Your task to perform on an android device: toggle location history Image 0: 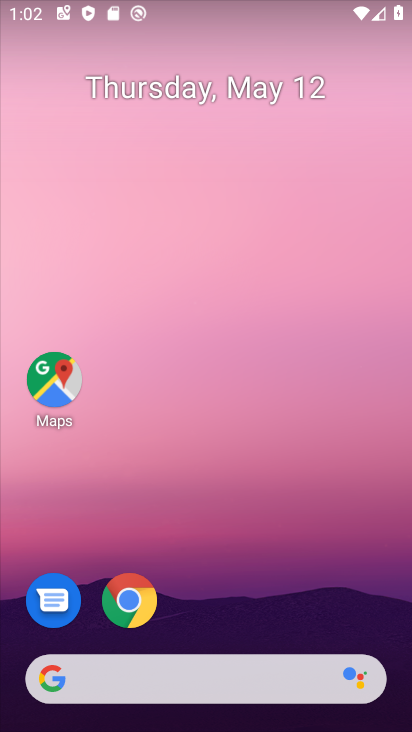
Step 0: drag from (222, 647) to (308, 164)
Your task to perform on an android device: toggle location history Image 1: 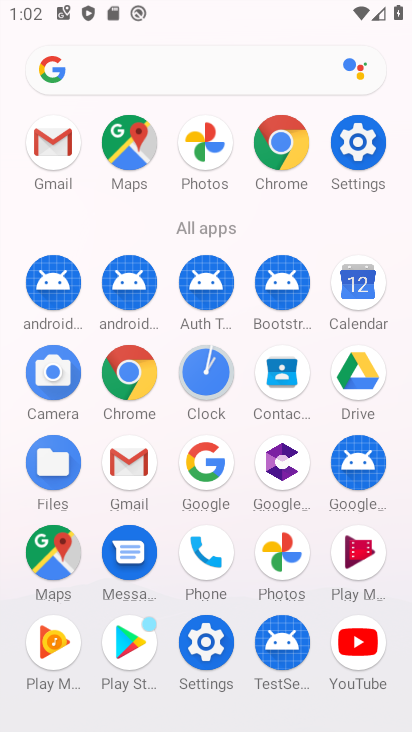
Step 1: click (201, 653)
Your task to perform on an android device: toggle location history Image 2: 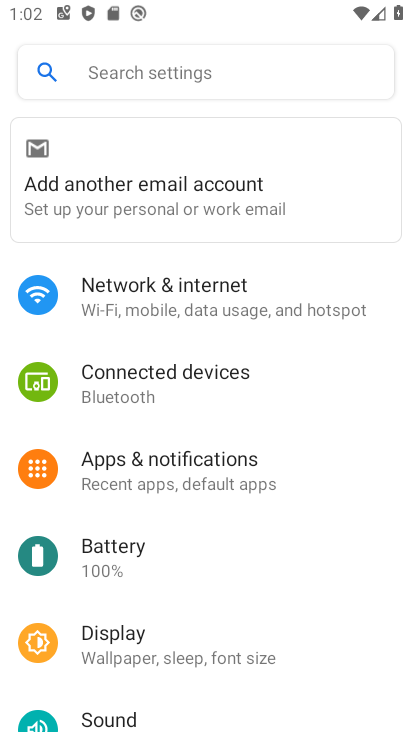
Step 2: drag from (225, 647) to (303, 300)
Your task to perform on an android device: toggle location history Image 3: 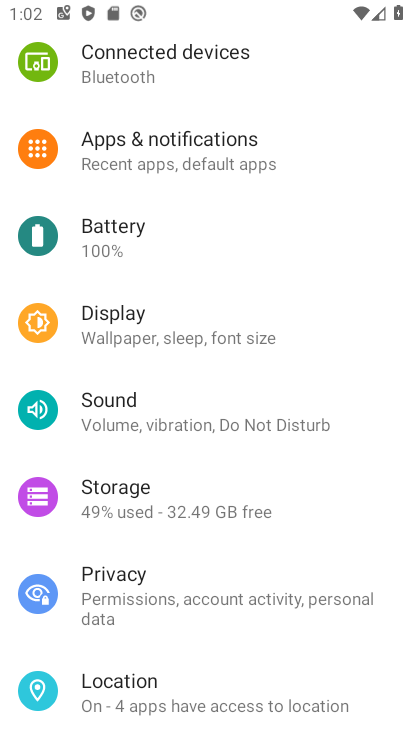
Step 3: click (157, 698)
Your task to perform on an android device: toggle location history Image 4: 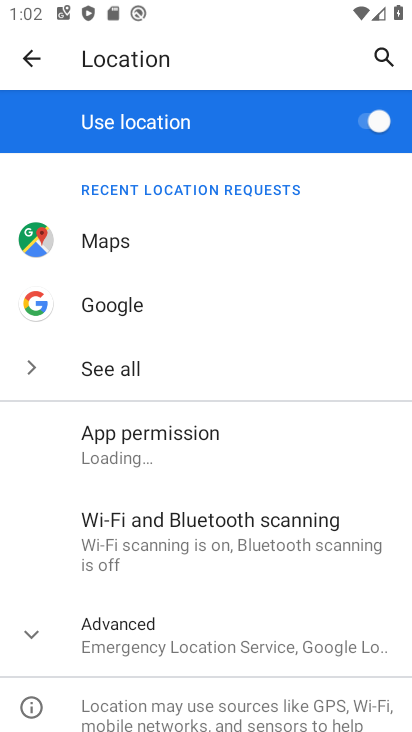
Step 4: click (225, 656)
Your task to perform on an android device: toggle location history Image 5: 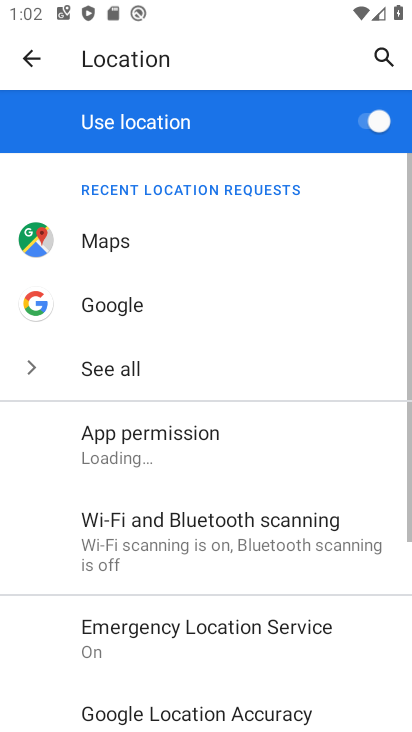
Step 5: drag from (223, 657) to (311, 294)
Your task to perform on an android device: toggle location history Image 6: 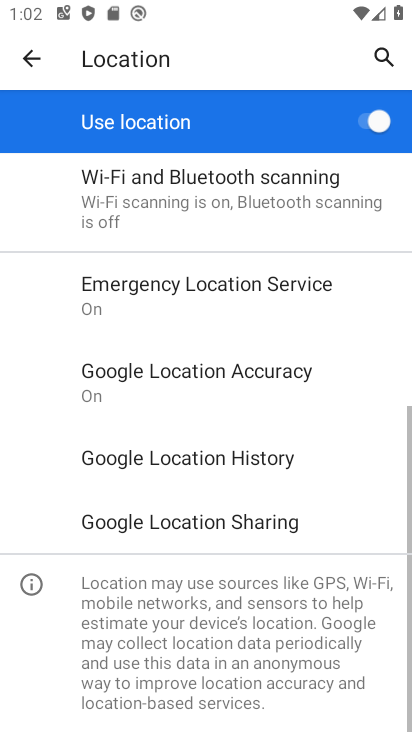
Step 6: click (239, 454)
Your task to perform on an android device: toggle location history Image 7: 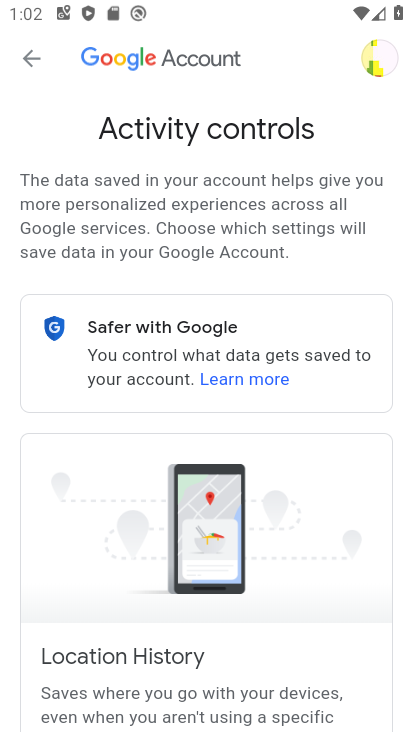
Step 7: drag from (195, 681) to (300, 170)
Your task to perform on an android device: toggle location history Image 8: 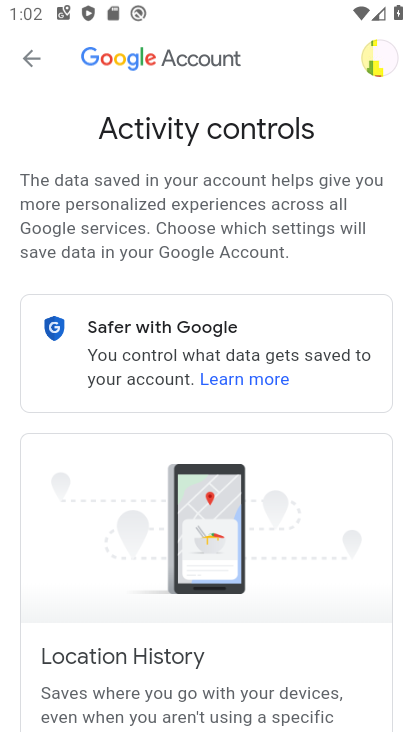
Step 8: drag from (240, 636) to (349, 94)
Your task to perform on an android device: toggle location history Image 9: 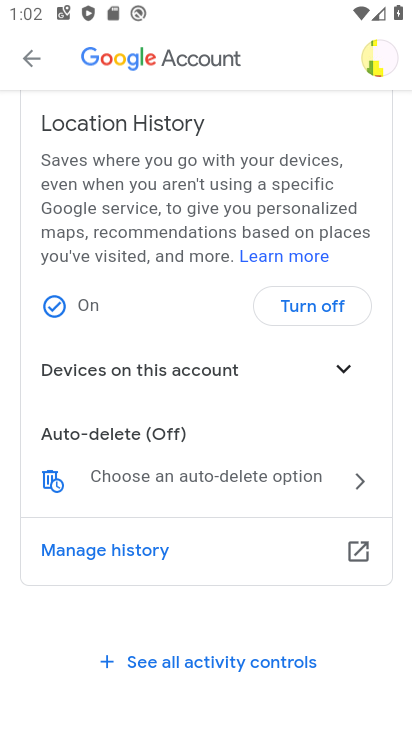
Step 9: click (308, 314)
Your task to perform on an android device: toggle location history Image 10: 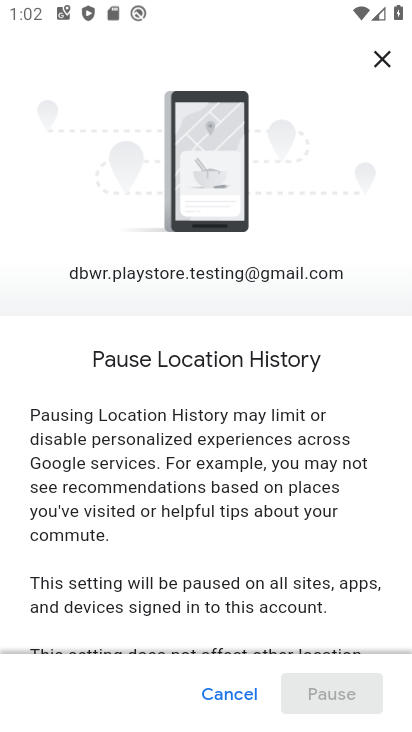
Step 10: drag from (168, 559) to (272, 32)
Your task to perform on an android device: toggle location history Image 11: 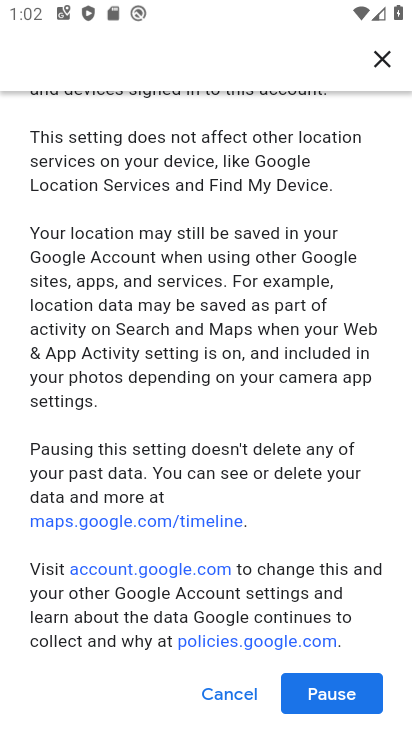
Step 11: drag from (195, 603) to (289, 129)
Your task to perform on an android device: toggle location history Image 12: 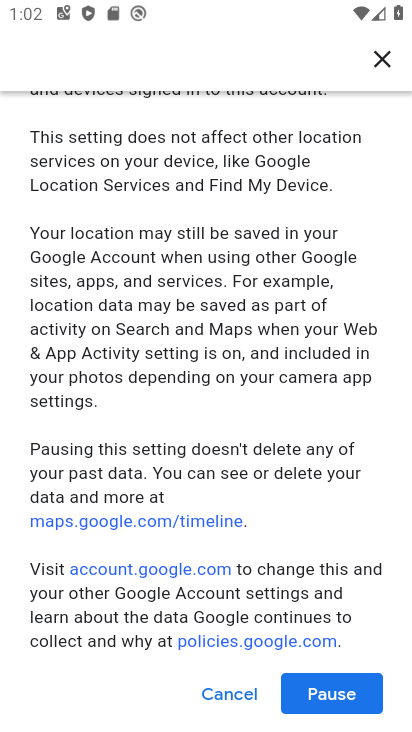
Step 12: click (342, 687)
Your task to perform on an android device: toggle location history Image 13: 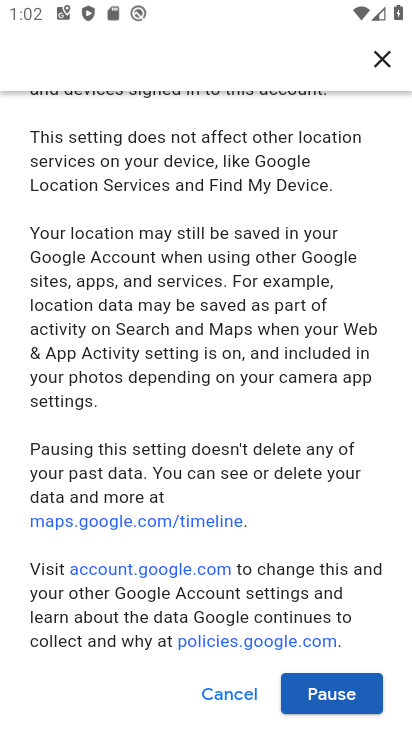
Step 13: click (346, 703)
Your task to perform on an android device: toggle location history Image 14: 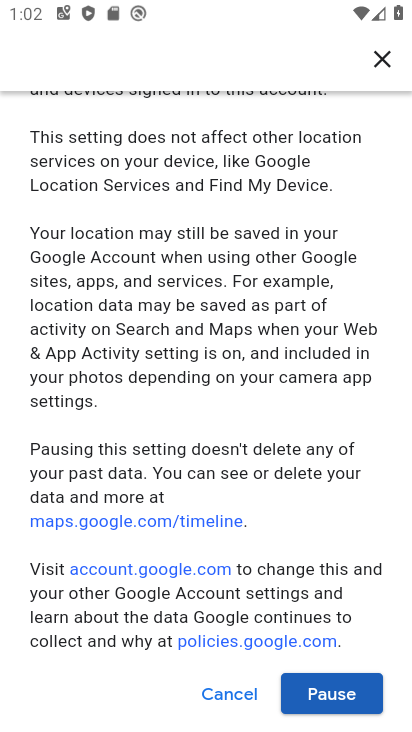
Step 14: click (364, 698)
Your task to perform on an android device: toggle location history Image 15: 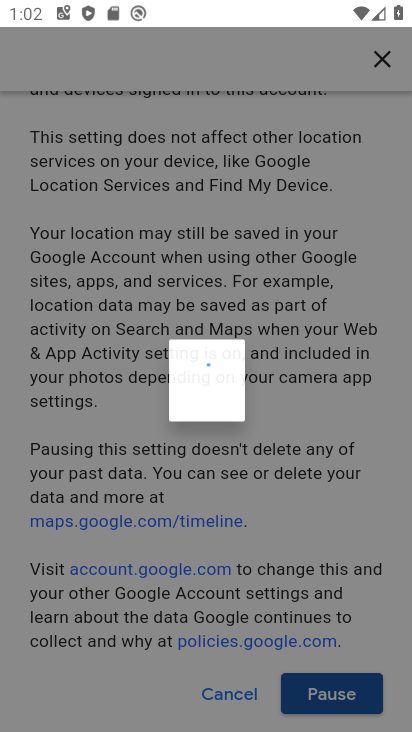
Step 15: click (347, 711)
Your task to perform on an android device: toggle location history Image 16: 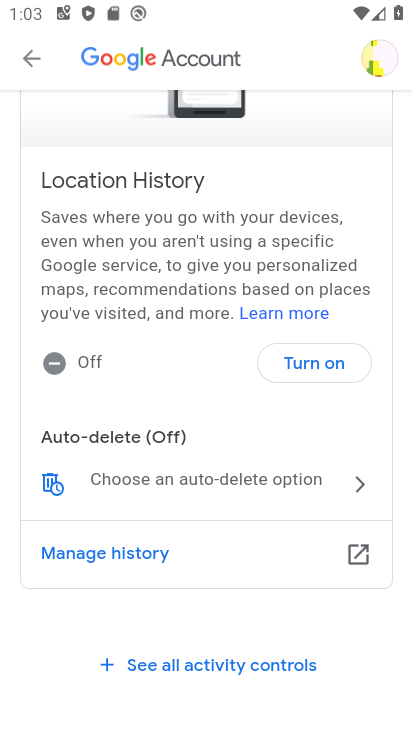
Step 16: task complete